Your task to perform on an android device: Go to battery settings Image 0: 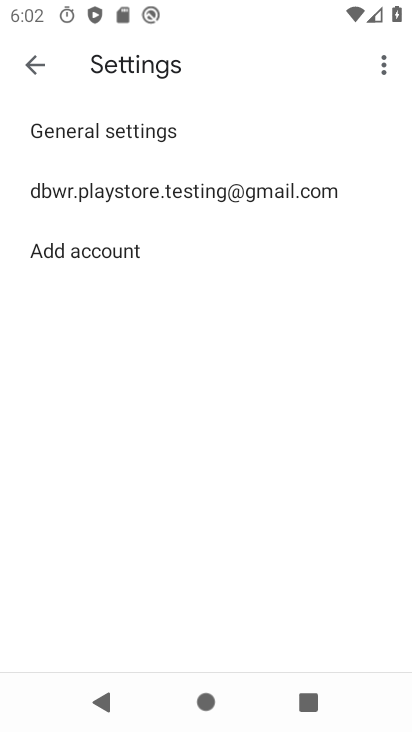
Step 0: press back button
Your task to perform on an android device: Go to battery settings Image 1: 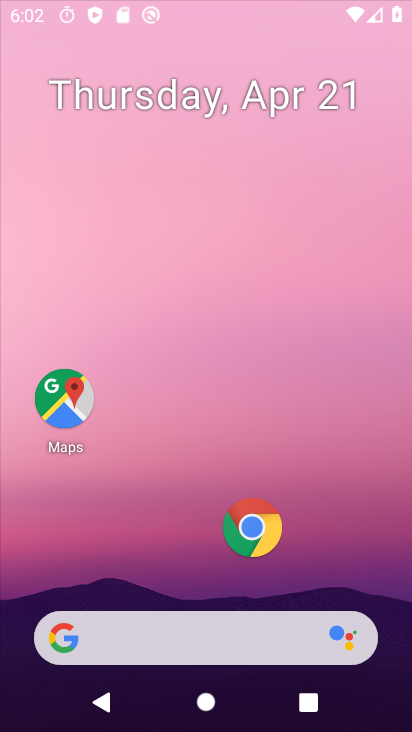
Step 1: drag from (163, 456) to (215, 0)
Your task to perform on an android device: Go to battery settings Image 2: 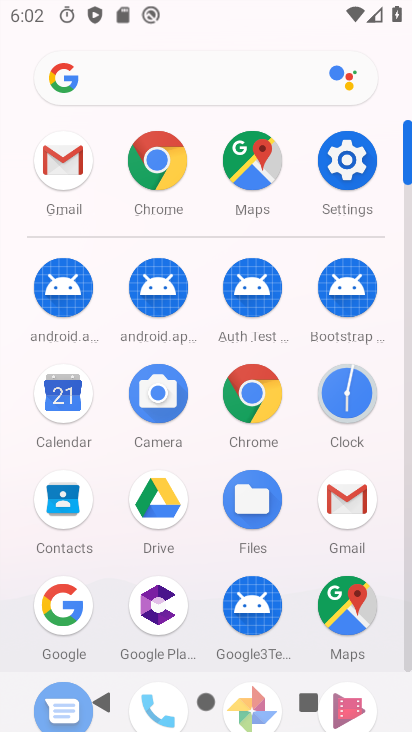
Step 2: click (335, 156)
Your task to perform on an android device: Go to battery settings Image 3: 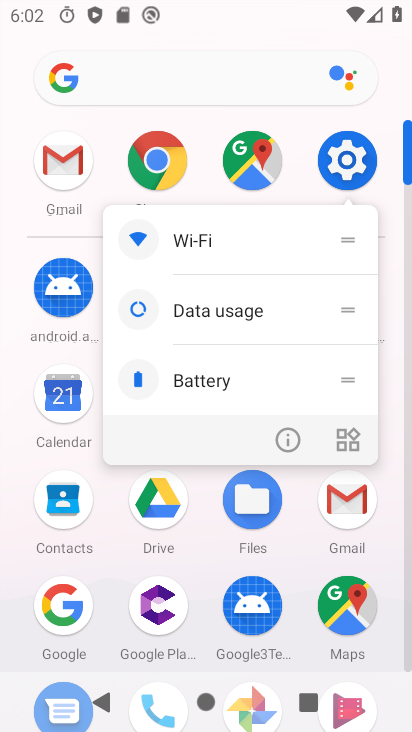
Step 3: click (195, 375)
Your task to perform on an android device: Go to battery settings Image 4: 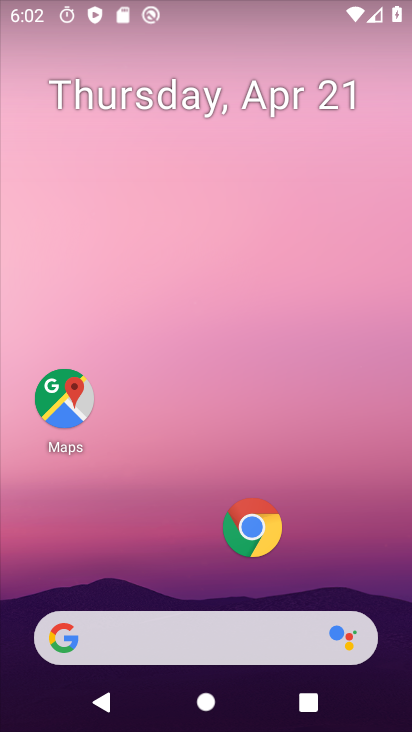
Step 4: drag from (173, 521) to (291, 18)
Your task to perform on an android device: Go to battery settings Image 5: 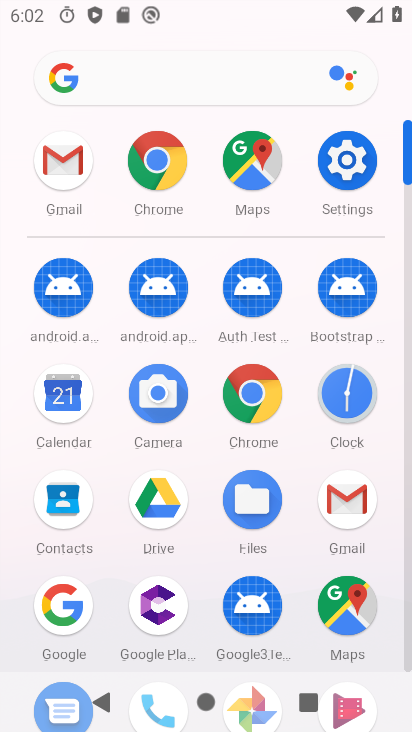
Step 5: click (358, 162)
Your task to perform on an android device: Go to battery settings Image 6: 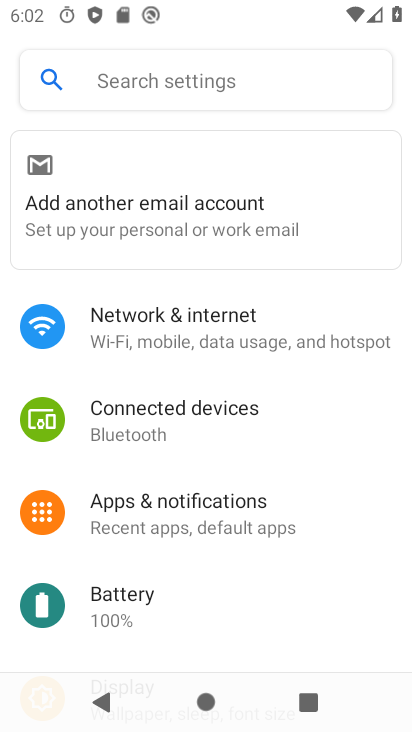
Step 6: click (138, 604)
Your task to perform on an android device: Go to battery settings Image 7: 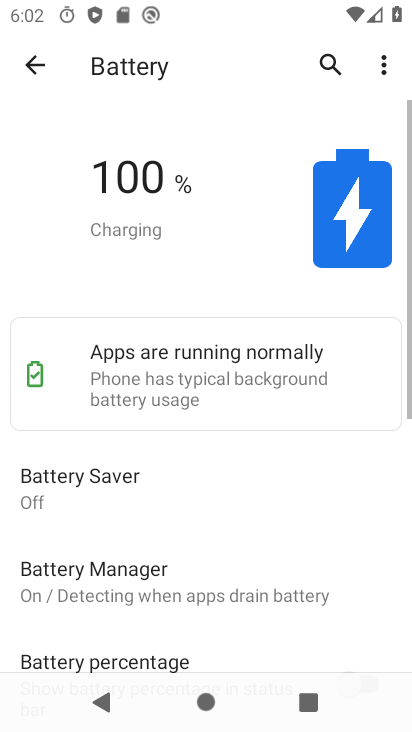
Step 7: task complete